Your task to perform on an android device: Go to Google Image 0: 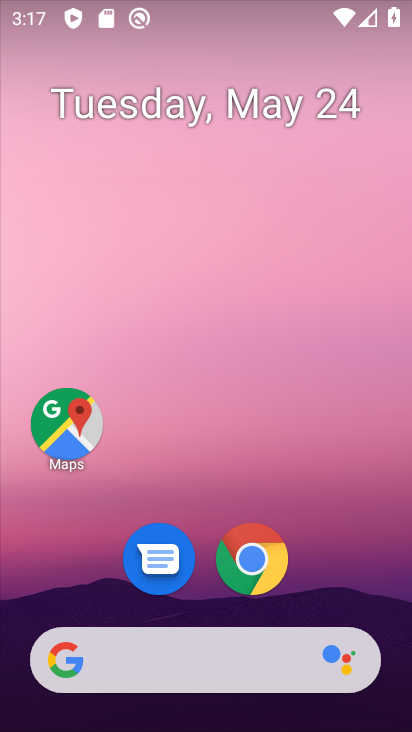
Step 0: drag from (326, 574) to (303, 147)
Your task to perform on an android device: Go to Google Image 1: 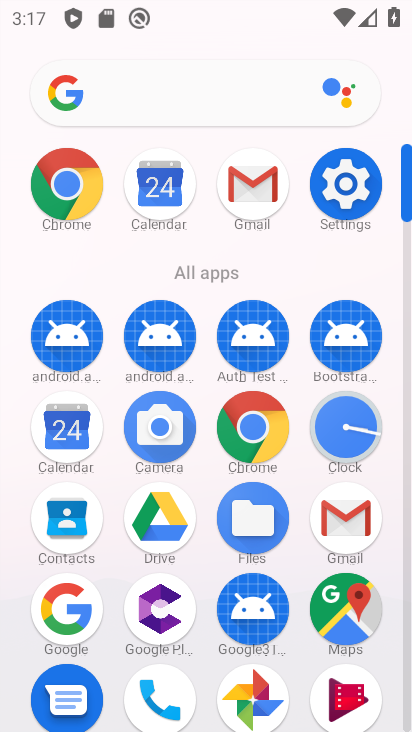
Step 1: click (60, 610)
Your task to perform on an android device: Go to Google Image 2: 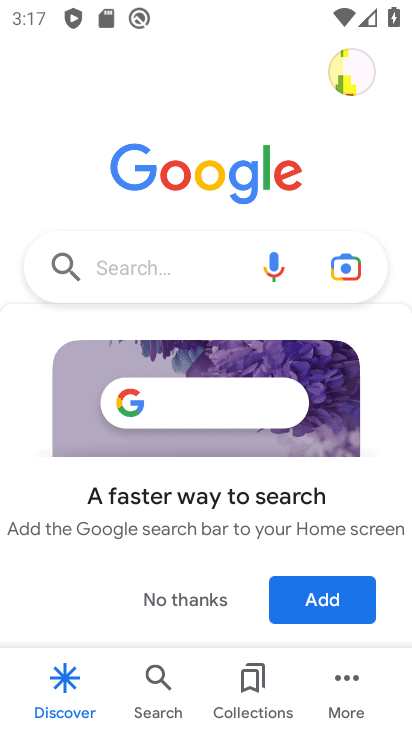
Step 2: task complete